Your task to perform on an android device: turn on improve location accuracy Image 0: 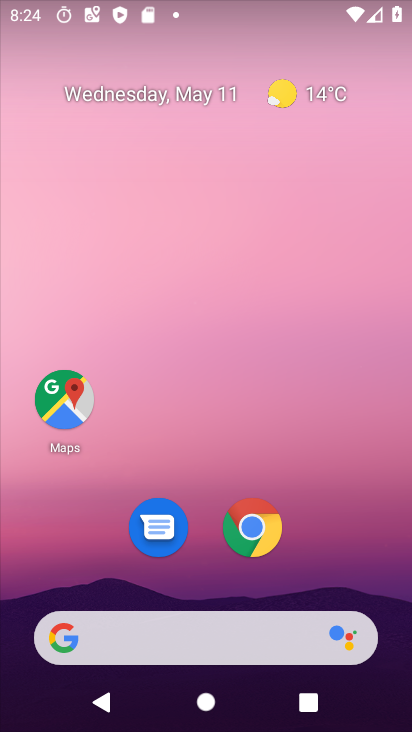
Step 0: drag from (185, 628) to (217, 123)
Your task to perform on an android device: turn on improve location accuracy Image 1: 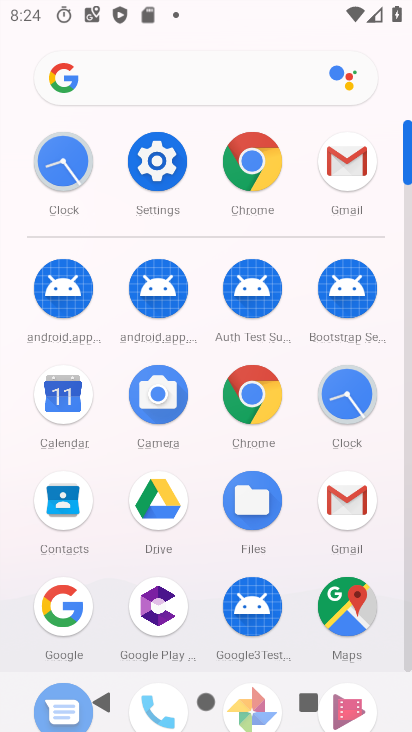
Step 1: click (168, 179)
Your task to perform on an android device: turn on improve location accuracy Image 2: 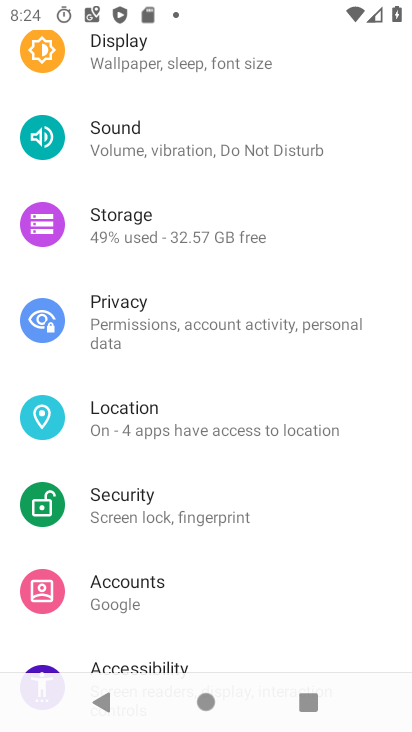
Step 2: click (184, 434)
Your task to perform on an android device: turn on improve location accuracy Image 3: 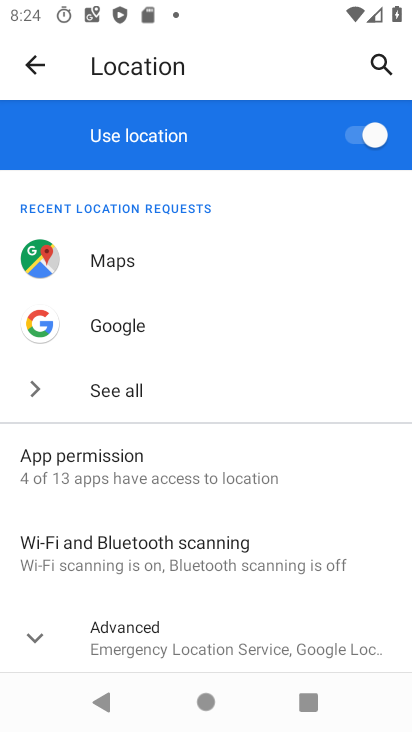
Step 3: click (177, 649)
Your task to perform on an android device: turn on improve location accuracy Image 4: 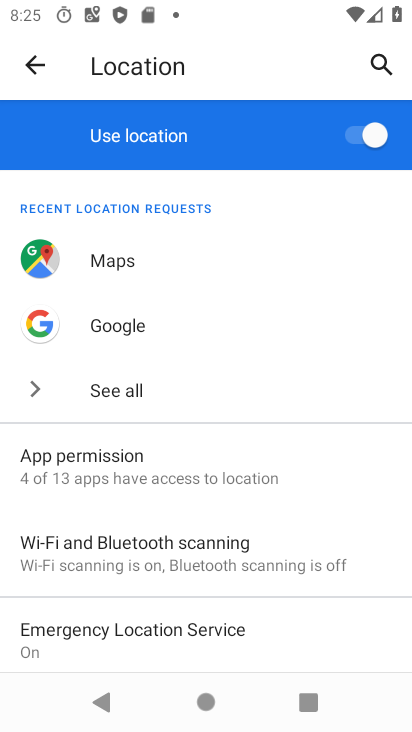
Step 4: drag from (177, 645) to (139, 365)
Your task to perform on an android device: turn on improve location accuracy Image 5: 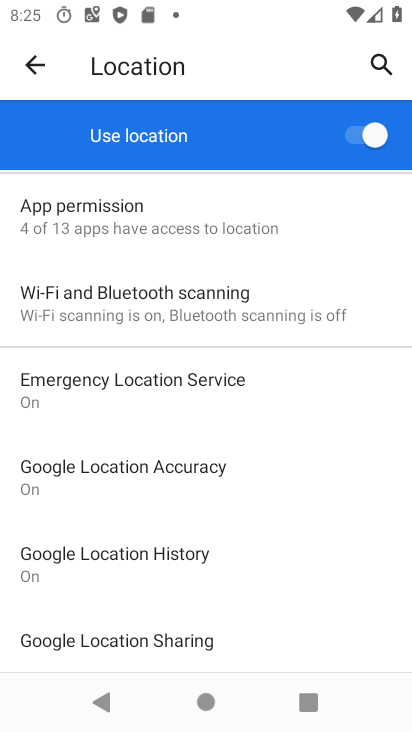
Step 5: click (170, 491)
Your task to perform on an android device: turn on improve location accuracy Image 6: 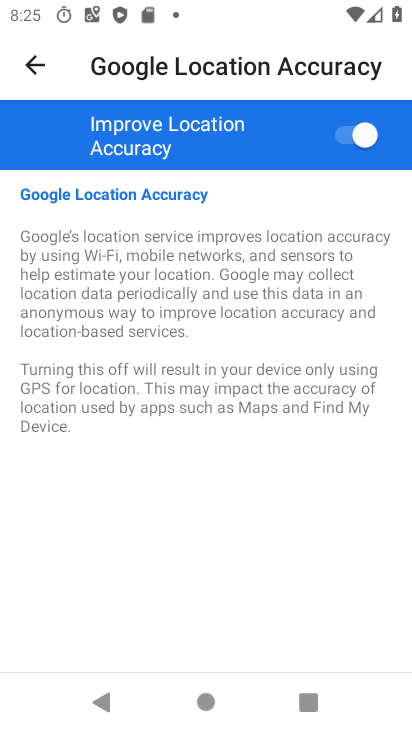
Step 6: task complete